Your task to perform on an android device: Go to Reddit.com Image 0: 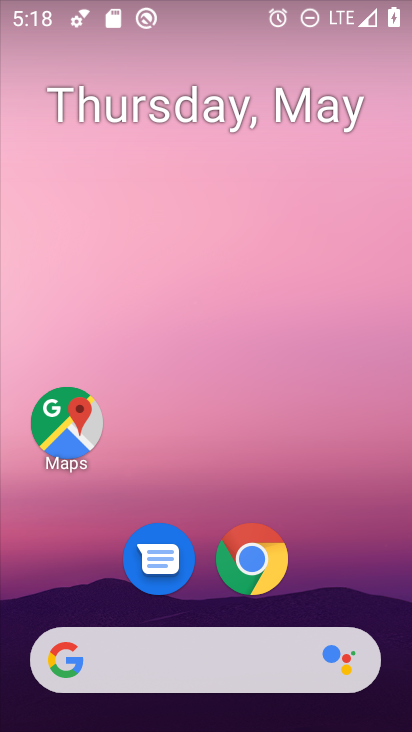
Step 0: click (266, 565)
Your task to perform on an android device: Go to Reddit.com Image 1: 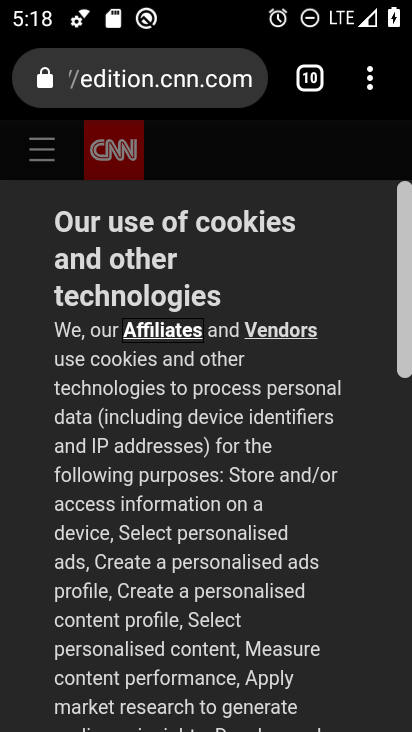
Step 1: click (309, 81)
Your task to perform on an android device: Go to Reddit.com Image 2: 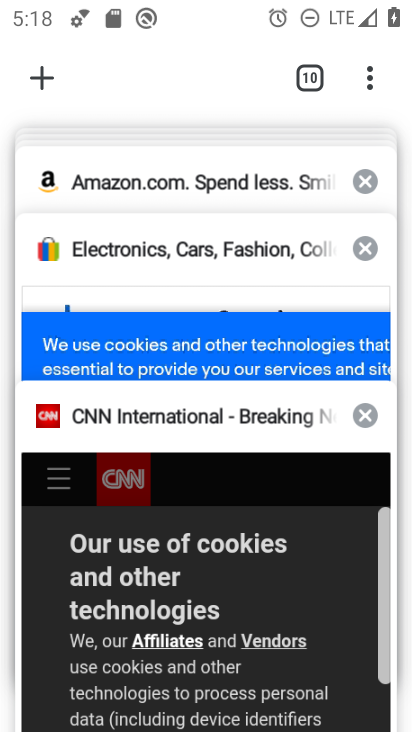
Step 2: drag from (175, 219) to (133, 663)
Your task to perform on an android device: Go to Reddit.com Image 3: 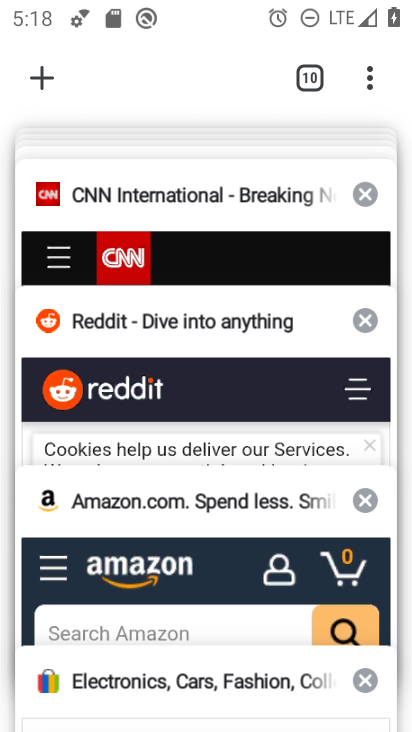
Step 3: click (135, 315)
Your task to perform on an android device: Go to Reddit.com Image 4: 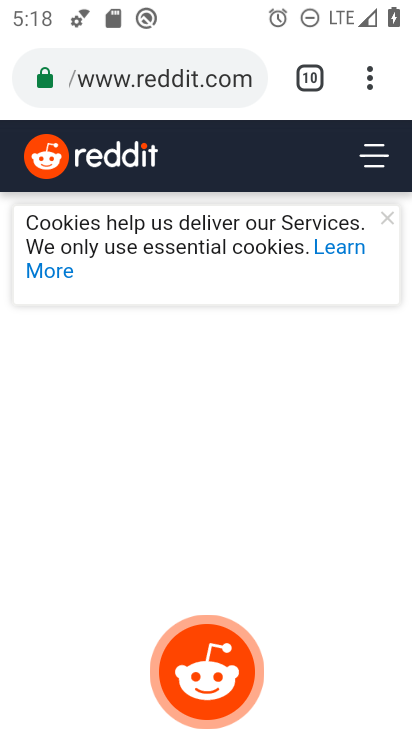
Step 4: task complete